Your task to perform on an android device: When is my next appointment? Image 0: 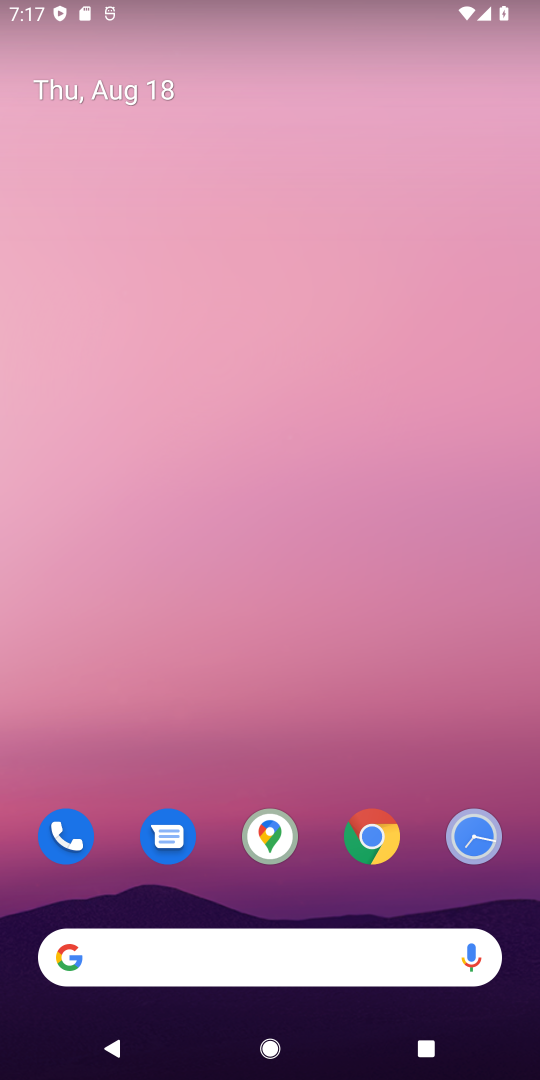
Step 0: drag from (279, 792) to (407, 108)
Your task to perform on an android device: When is my next appointment? Image 1: 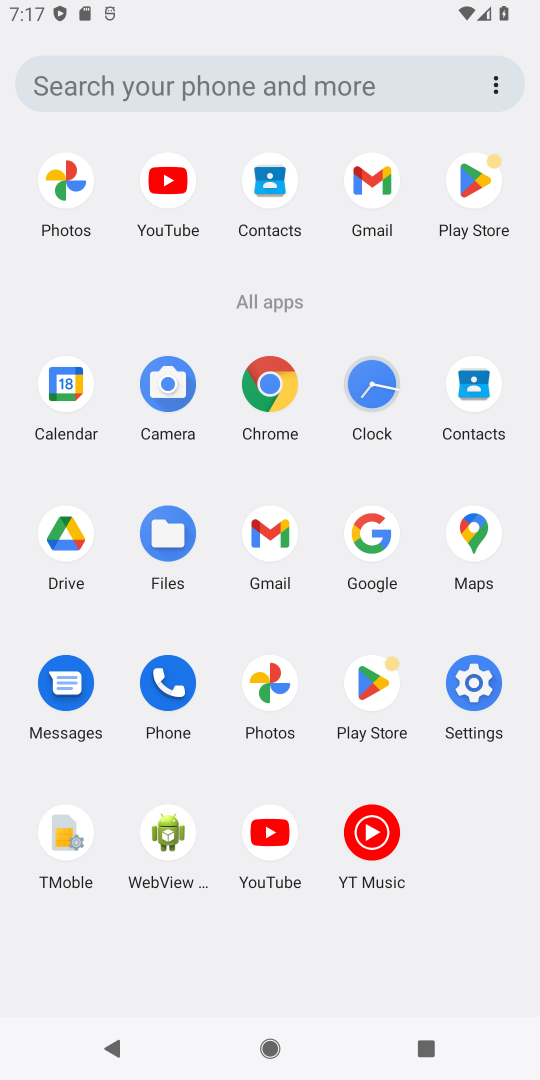
Step 1: click (64, 388)
Your task to perform on an android device: When is my next appointment? Image 2: 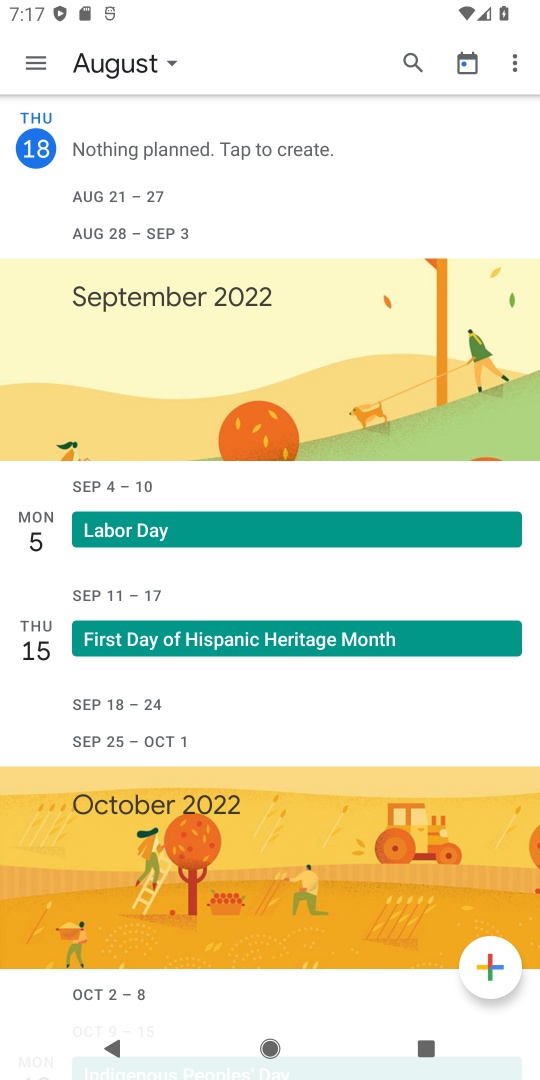
Step 2: click (42, 60)
Your task to perform on an android device: When is my next appointment? Image 3: 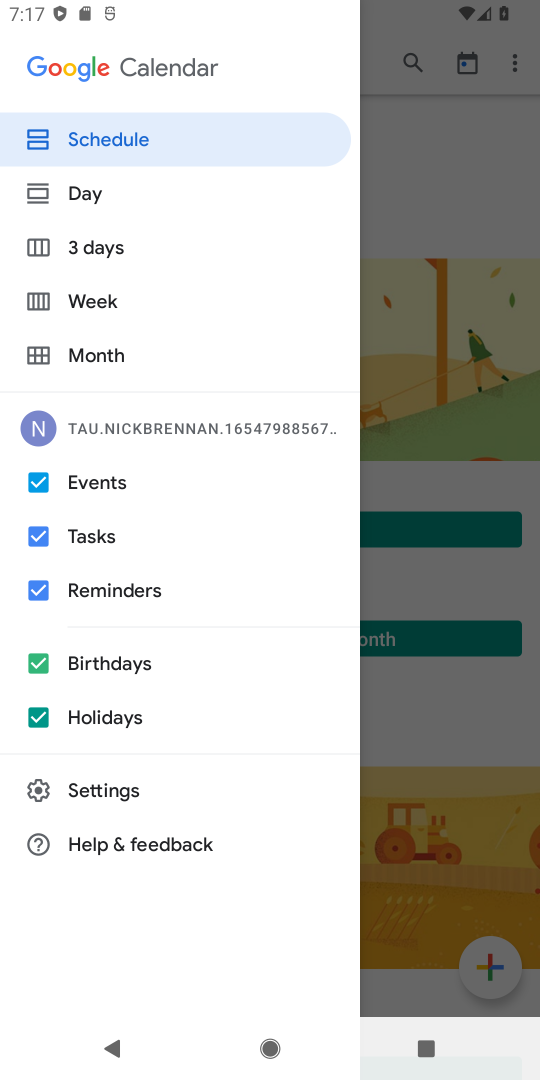
Step 3: click (108, 301)
Your task to perform on an android device: When is my next appointment? Image 4: 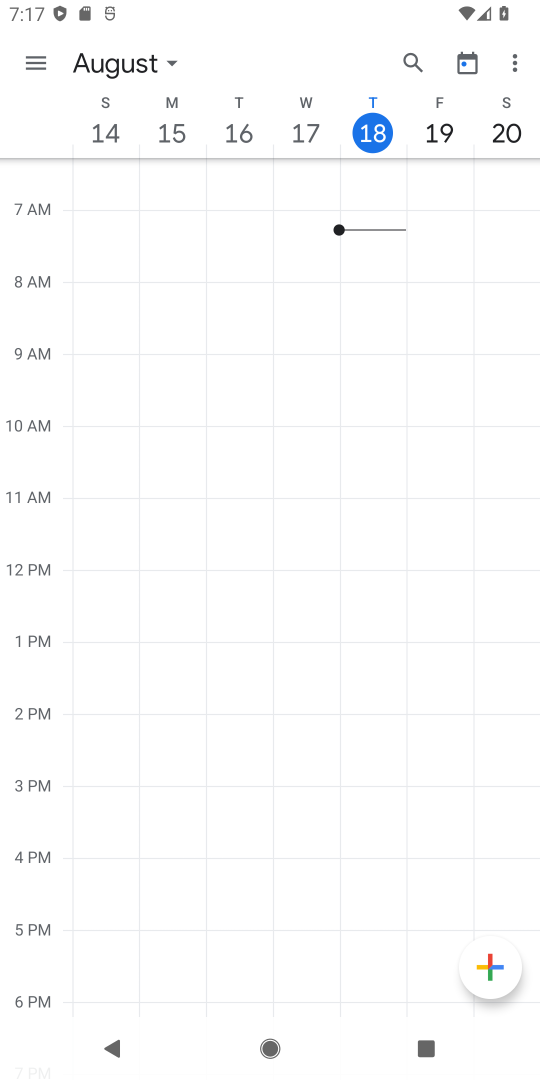
Step 4: task complete